Your task to perform on an android device: toggle priority inbox in the gmail app Image 0: 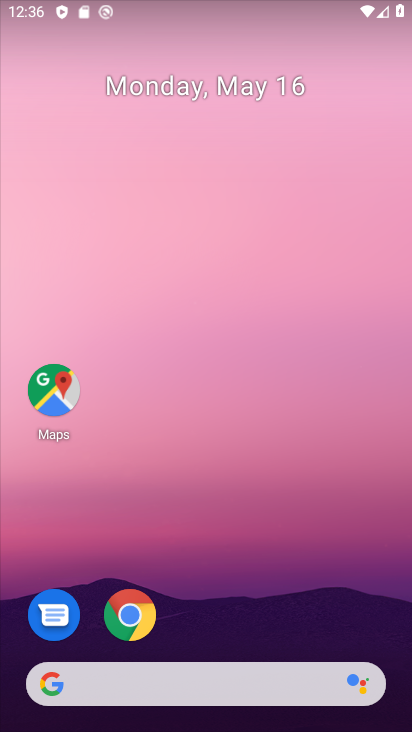
Step 0: drag from (246, 539) to (292, 8)
Your task to perform on an android device: toggle priority inbox in the gmail app Image 1: 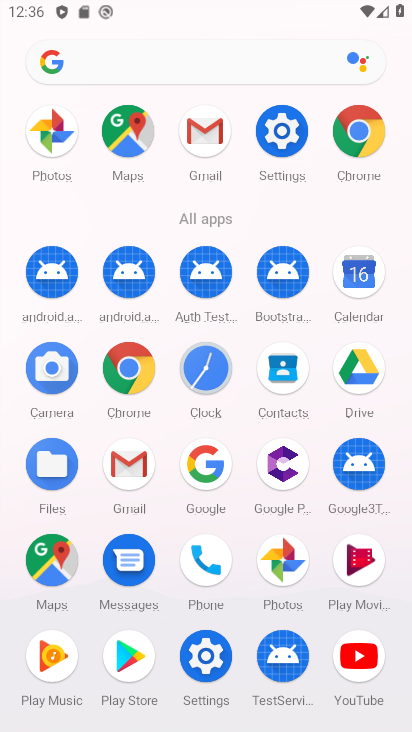
Step 1: click (199, 135)
Your task to perform on an android device: toggle priority inbox in the gmail app Image 2: 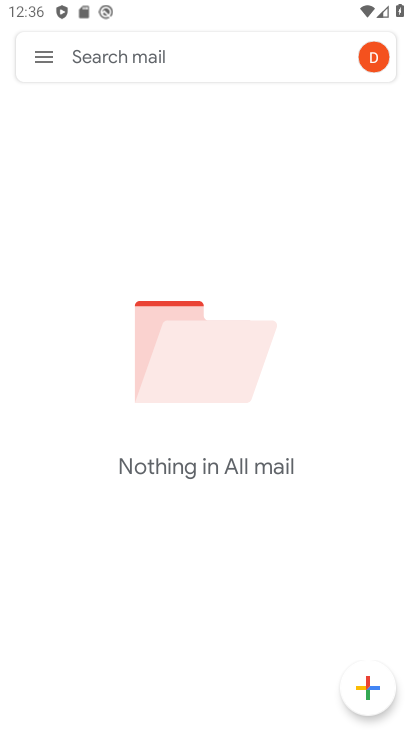
Step 2: click (45, 54)
Your task to perform on an android device: toggle priority inbox in the gmail app Image 3: 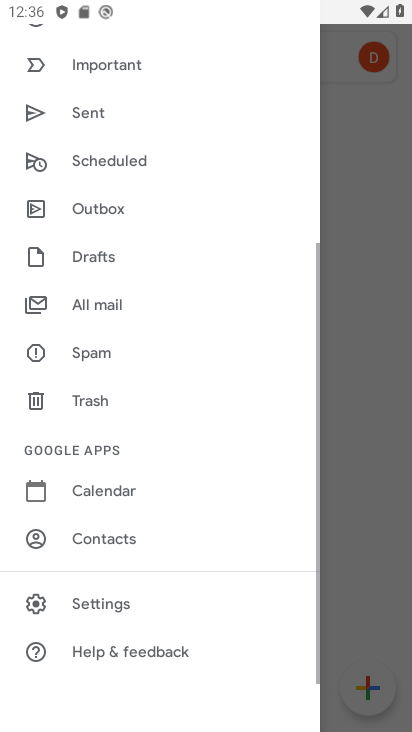
Step 3: click (143, 604)
Your task to perform on an android device: toggle priority inbox in the gmail app Image 4: 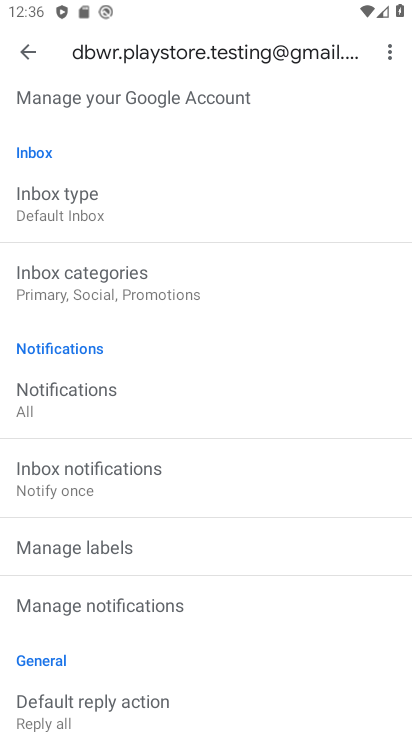
Step 4: drag from (223, 606) to (234, 222)
Your task to perform on an android device: toggle priority inbox in the gmail app Image 5: 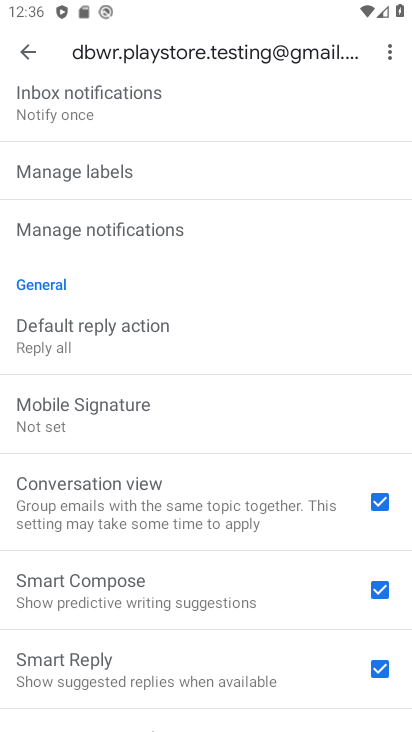
Step 5: drag from (231, 225) to (237, 652)
Your task to perform on an android device: toggle priority inbox in the gmail app Image 6: 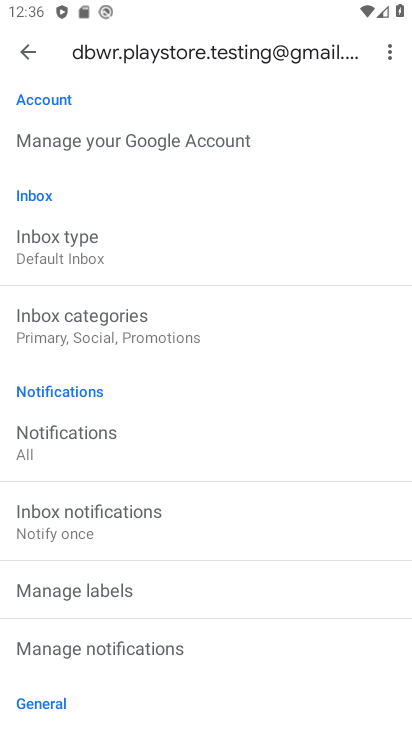
Step 6: click (103, 242)
Your task to perform on an android device: toggle priority inbox in the gmail app Image 7: 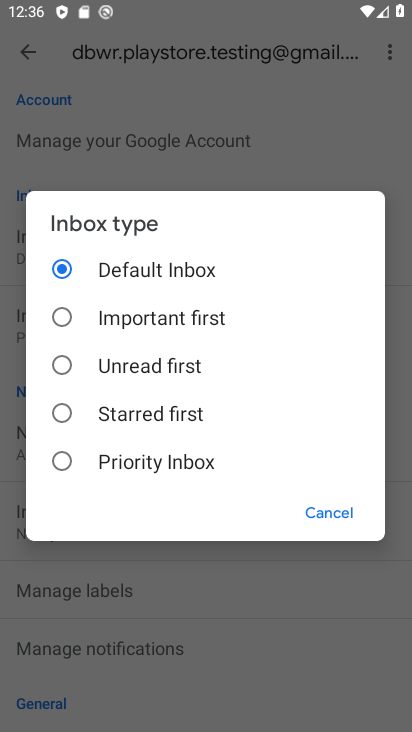
Step 7: click (169, 462)
Your task to perform on an android device: toggle priority inbox in the gmail app Image 8: 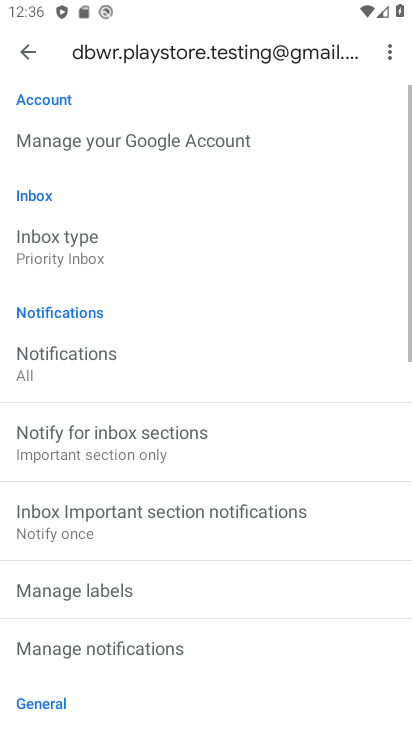
Step 8: task complete